Your task to perform on an android device: check out phone information Image 0: 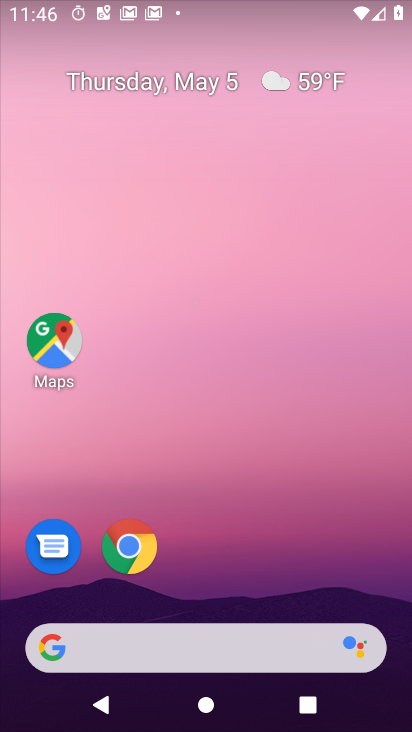
Step 0: drag from (203, 330) to (203, 51)
Your task to perform on an android device: check out phone information Image 1: 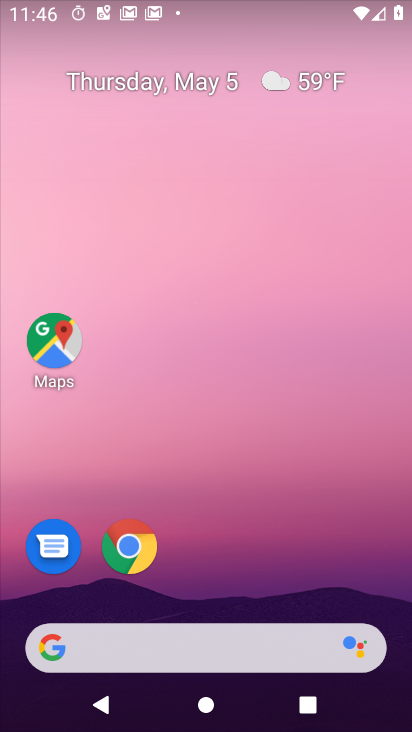
Step 1: drag from (244, 458) to (210, 37)
Your task to perform on an android device: check out phone information Image 2: 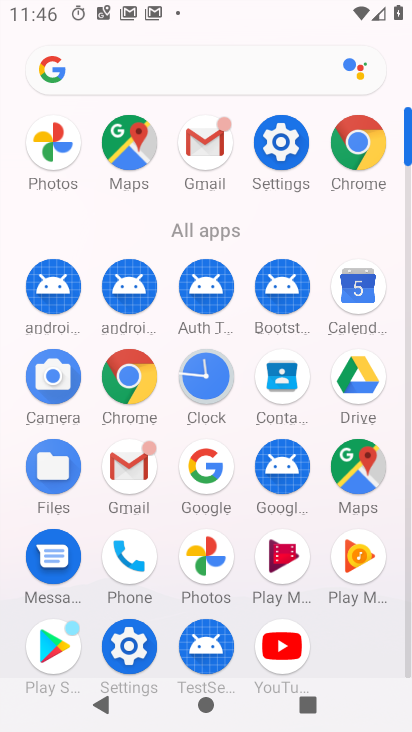
Step 2: click (272, 140)
Your task to perform on an android device: check out phone information Image 3: 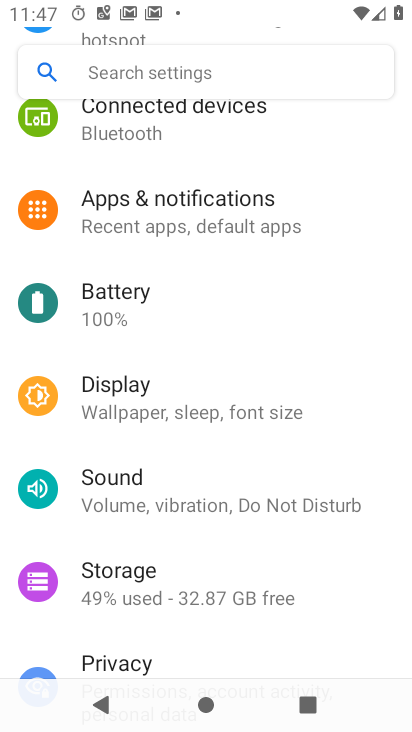
Step 3: drag from (241, 642) to (247, 210)
Your task to perform on an android device: check out phone information Image 4: 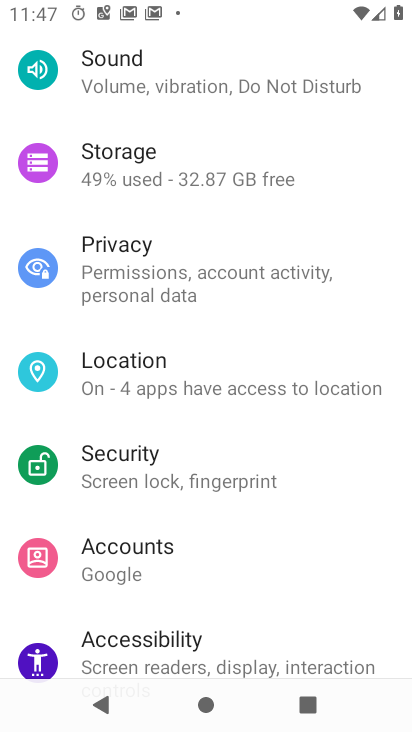
Step 4: drag from (253, 568) to (290, 40)
Your task to perform on an android device: check out phone information Image 5: 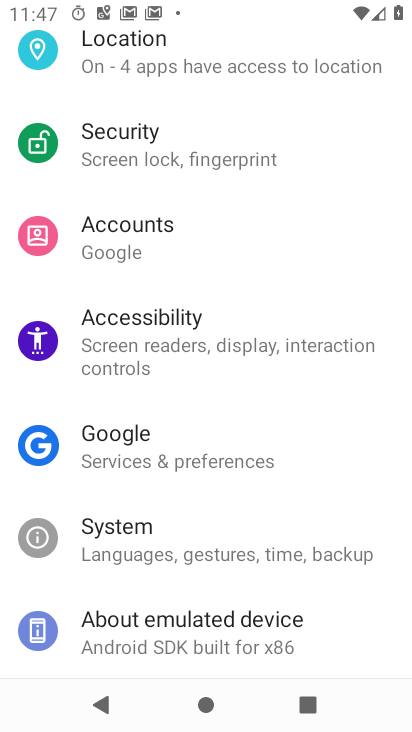
Step 5: click (205, 629)
Your task to perform on an android device: check out phone information Image 6: 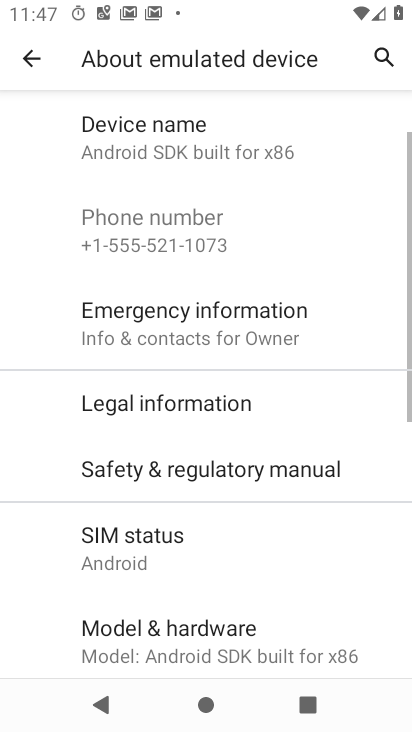
Step 6: drag from (247, 569) to (277, 256)
Your task to perform on an android device: check out phone information Image 7: 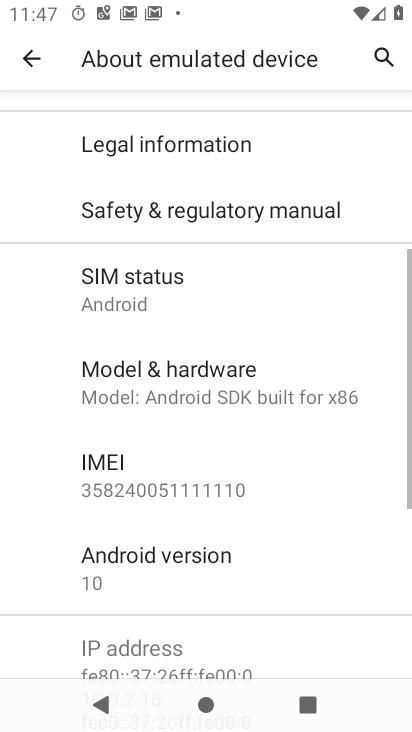
Step 7: drag from (300, 556) to (319, 433)
Your task to perform on an android device: check out phone information Image 8: 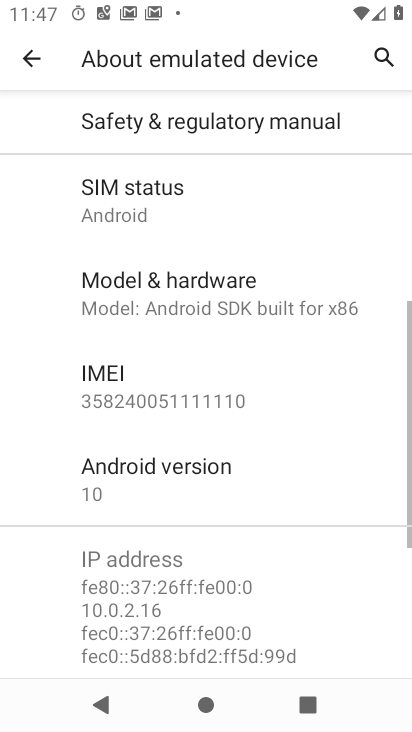
Step 8: click (215, 279)
Your task to perform on an android device: check out phone information Image 9: 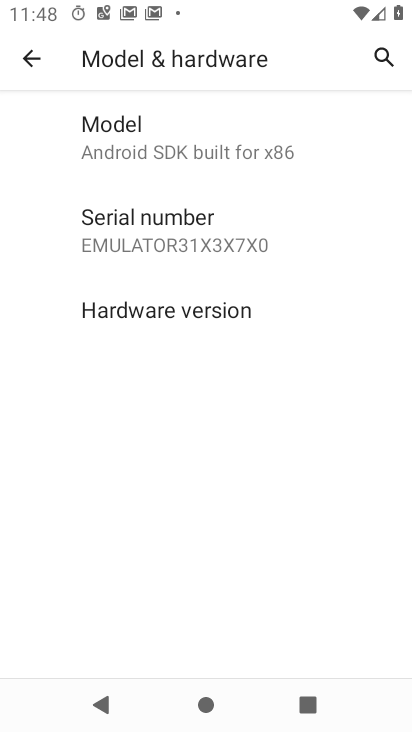
Step 9: task complete